Your task to perform on an android device: turn notification dots on Image 0: 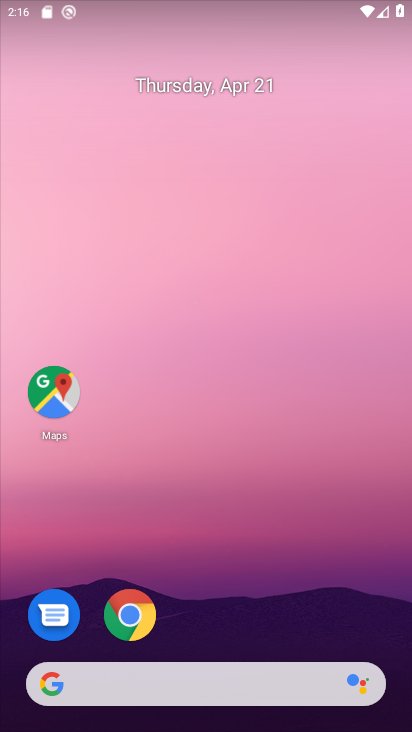
Step 0: drag from (271, 630) to (296, 57)
Your task to perform on an android device: turn notification dots on Image 1: 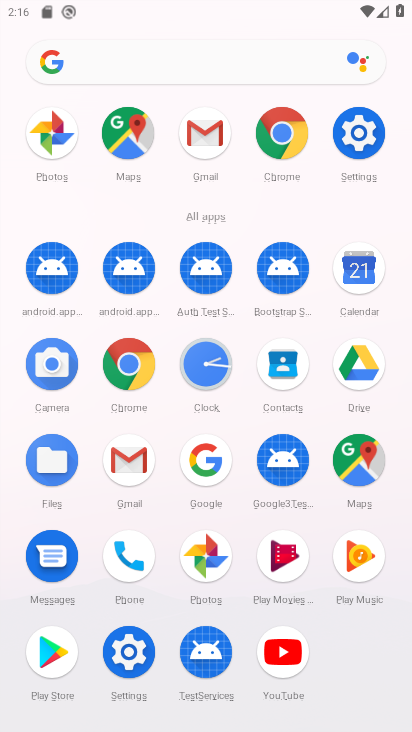
Step 1: click (362, 135)
Your task to perform on an android device: turn notification dots on Image 2: 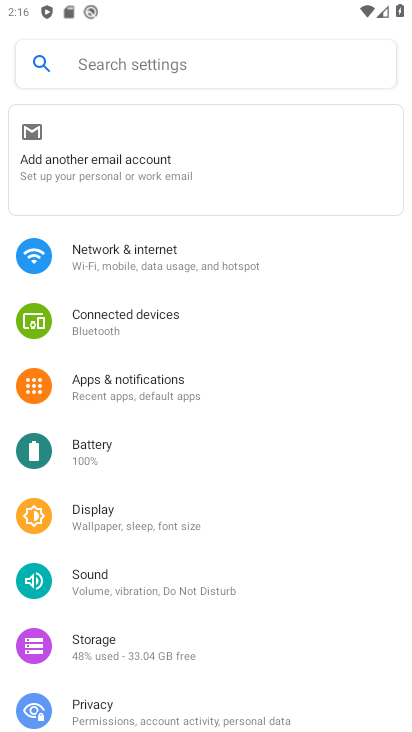
Step 2: click (120, 388)
Your task to perform on an android device: turn notification dots on Image 3: 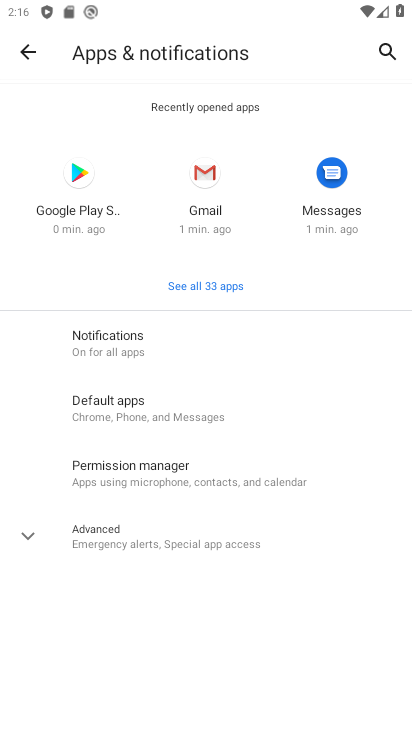
Step 3: click (142, 343)
Your task to perform on an android device: turn notification dots on Image 4: 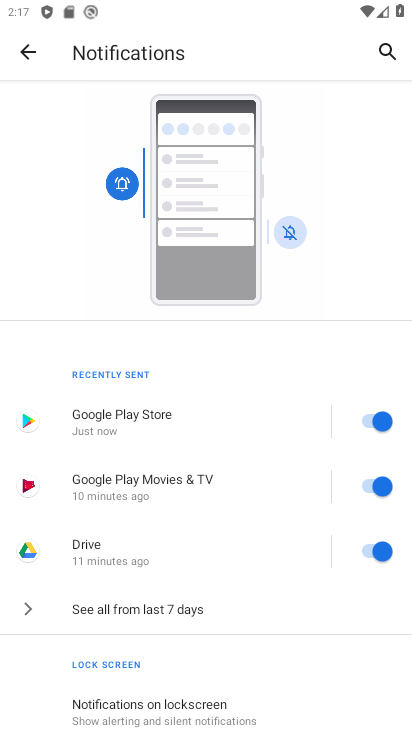
Step 4: drag from (182, 648) to (236, 280)
Your task to perform on an android device: turn notification dots on Image 5: 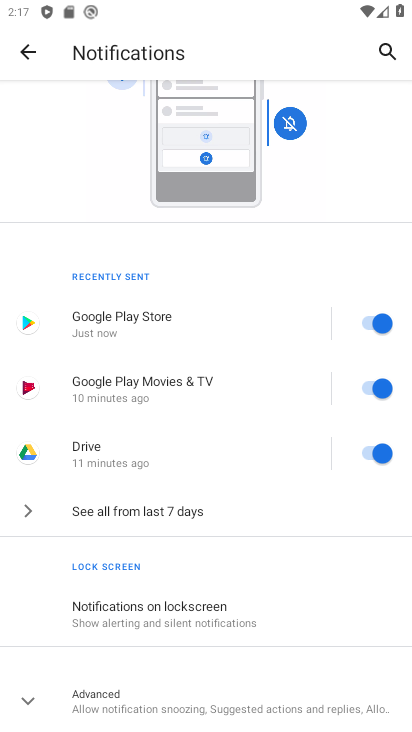
Step 5: click (152, 692)
Your task to perform on an android device: turn notification dots on Image 6: 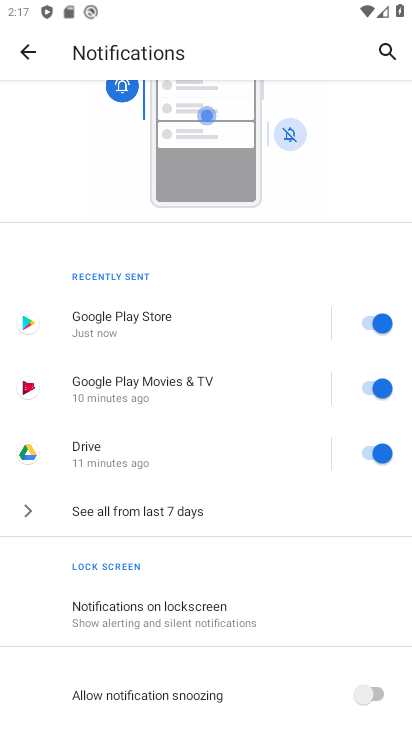
Step 6: task complete